Your task to perform on an android device: toggle wifi Image 0: 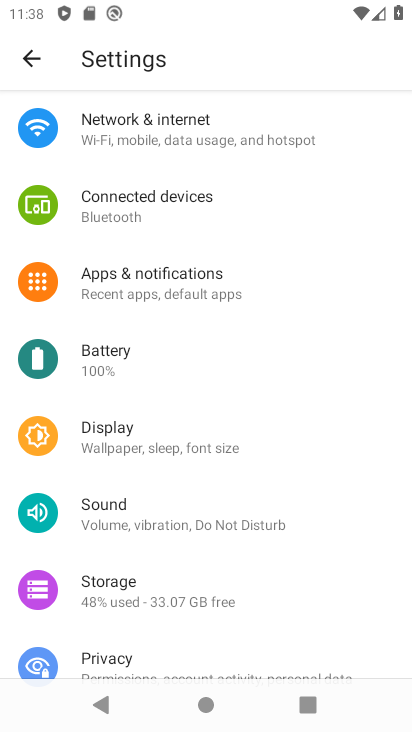
Step 0: click (190, 114)
Your task to perform on an android device: toggle wifi Image 1: 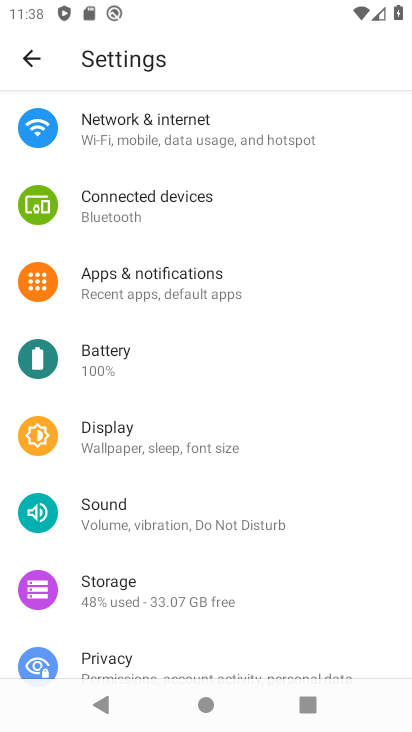
Step 1: click (190, 114)
Your task to perform on an android device: toggle wifi Image 2: 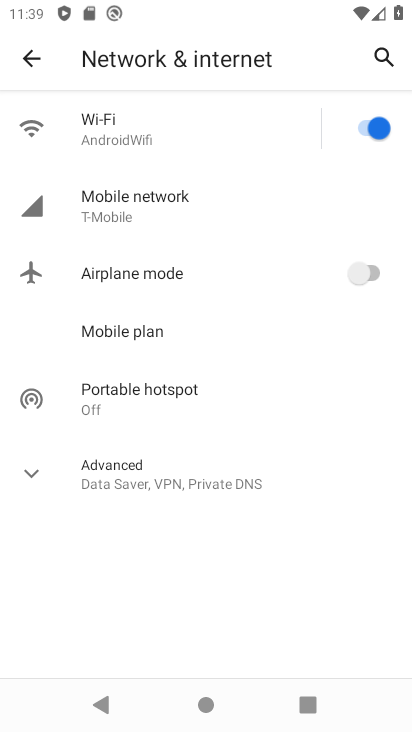
Step 2: click (366, 134)
Your task to perform on an android device: toggle wifi Image 3: 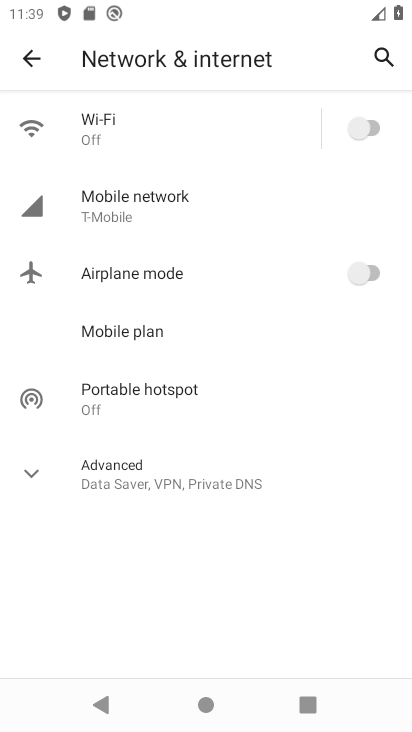
Step 3: task complete